Your task to perform on an android device: Search for pizza restaurants on Maps Image 0: 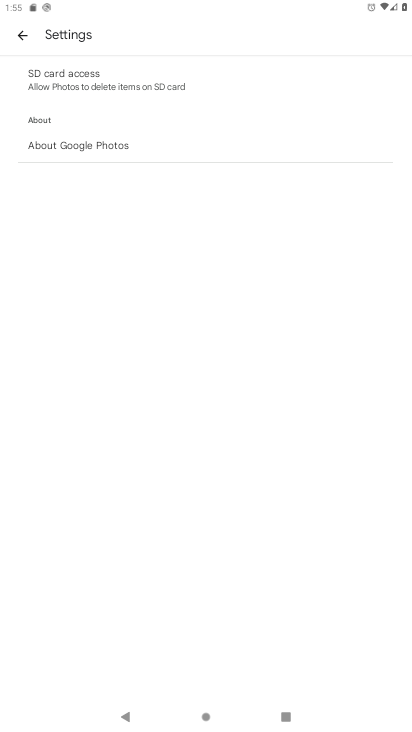
Step 0: press home button
Your task to perform on an android device: Search for pizza restaurants on Maps Image 1: 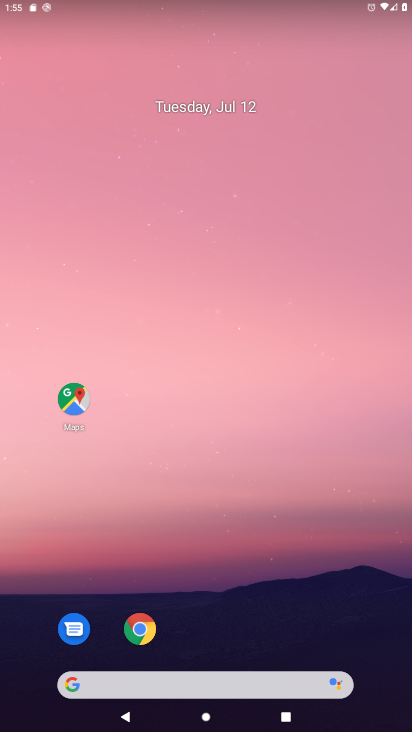
Step 1: drag from (286, 683) to (193, 76)
Your task to perform on an android device: Search for pizza restaurants on Maps Image 2: 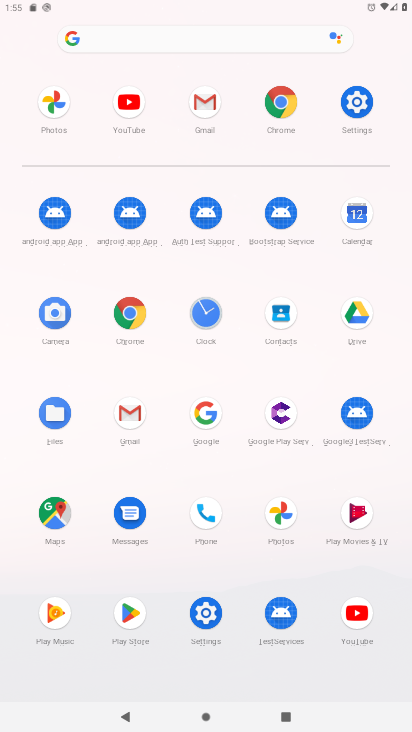
Step 2: click (68, 515)
Your task to perform on an android device: Search for pizza restaurants on Maps Image 3: 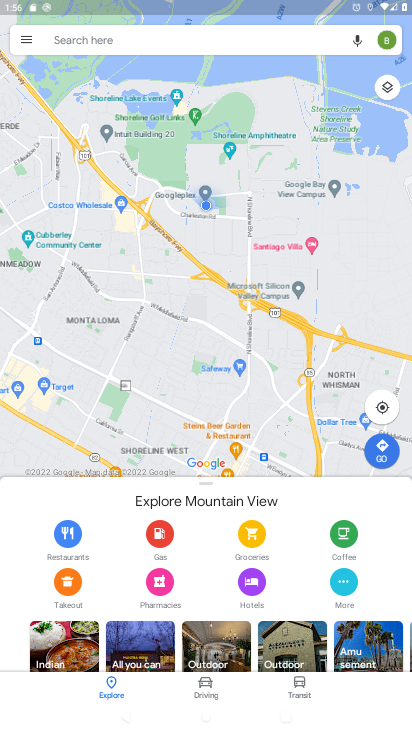
Step 3: click (161, 43)
Your task to perform on an android device: Search for pizza restaurants on Maps Image 4: 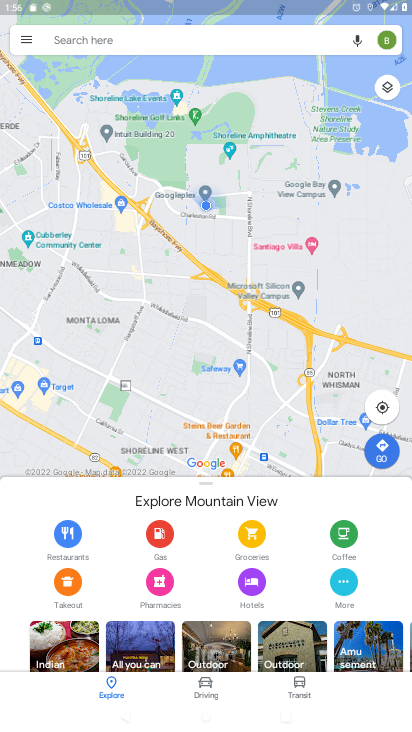
Step 4: click (161, 43)
Your task to perform on an android device: Search for pizza restaurants on Maps Image 5: 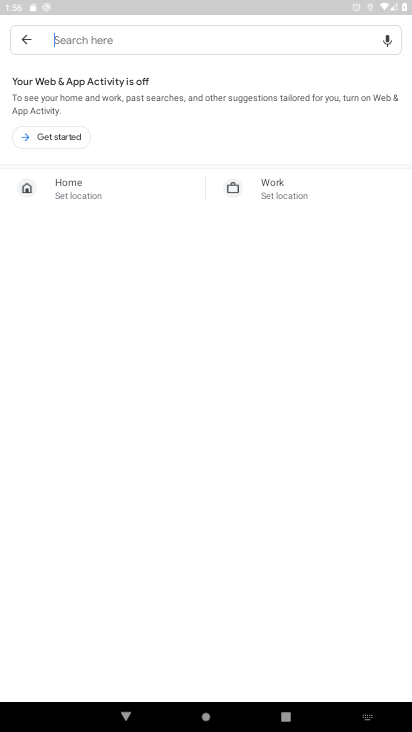
Step 5: type "pizza restaurant"
Your task to perform on an android device: Search for pizza restaurants on Maps Image 6: 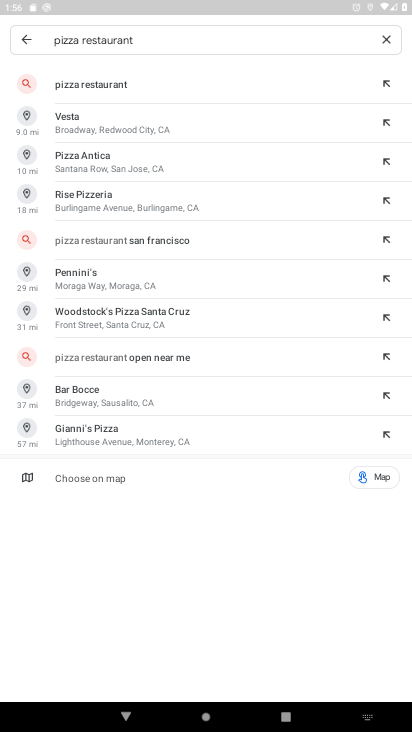
Step 6: click (303, 78)
Your task to perform on an android device: Search for pizza restaurants on Maps Image 7: 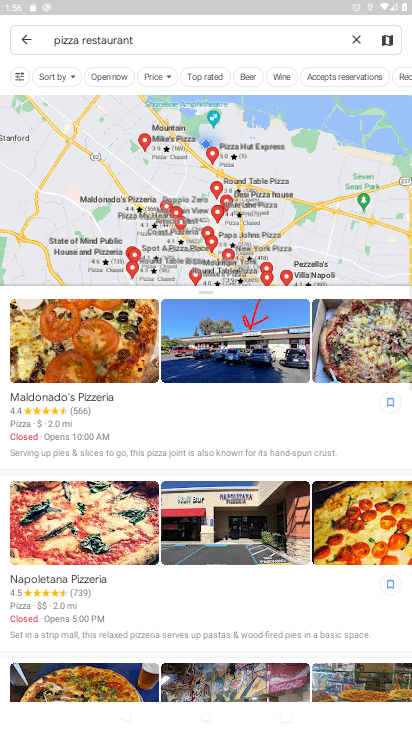
Step 7: task complete